Your task to perform on an android device: Go to CNN.com Image 0: 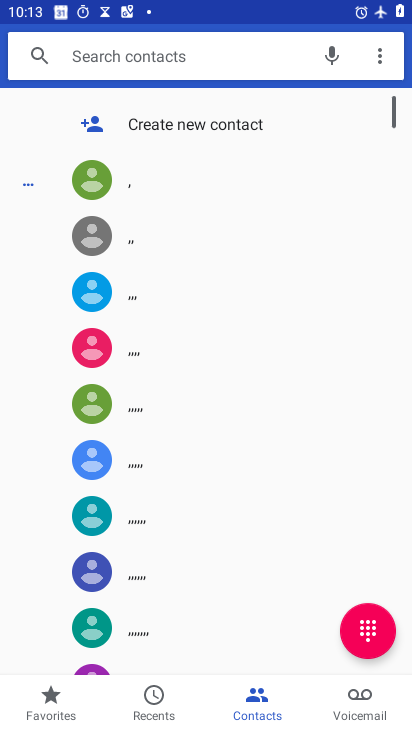
Step 0: press home button
Your task to perform on an android device: Go to CNN.com Image 1: 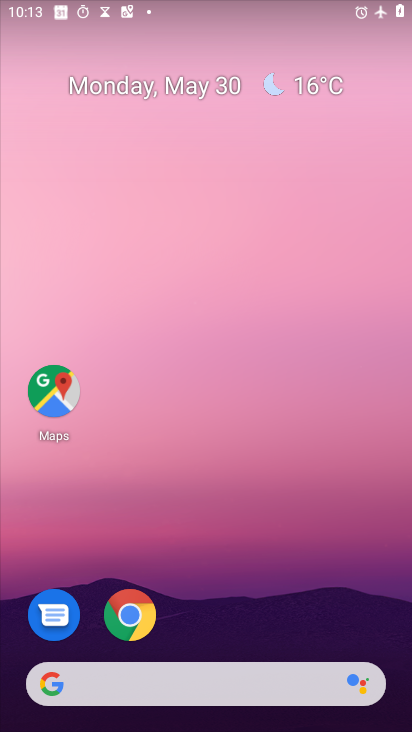
Step 1: drag from (272, 587) to (228, 27)
Your task to perform on an android device: Go to CNN.com Image 2: 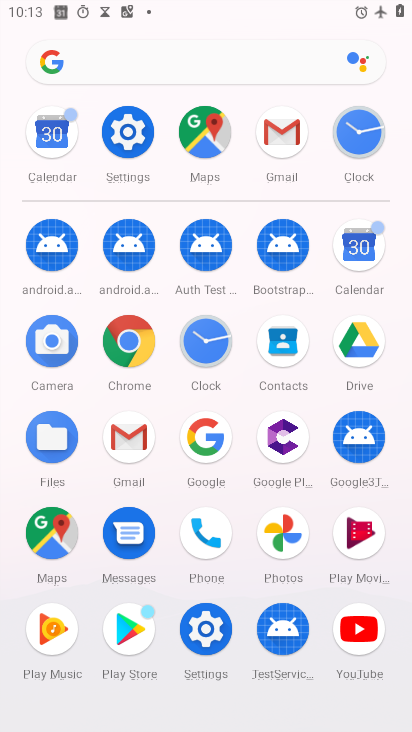
Step 2: click (127, 352)
Your task to perform on an android device: Go to CNN.com Image 3: 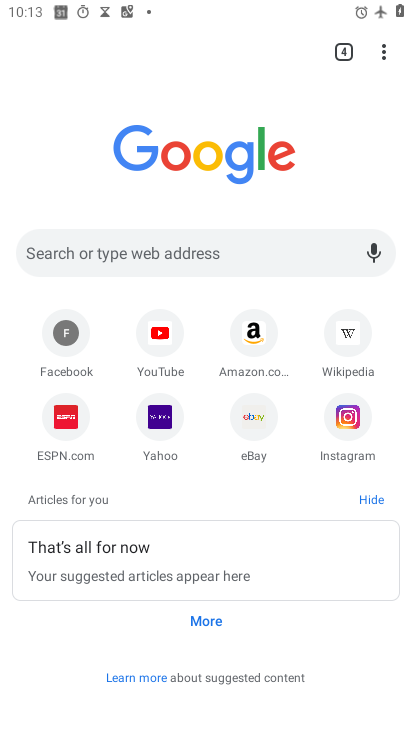
Step 3: click (188, 261)
Your task to perform on an android device: Go to CNN.com Image 4: 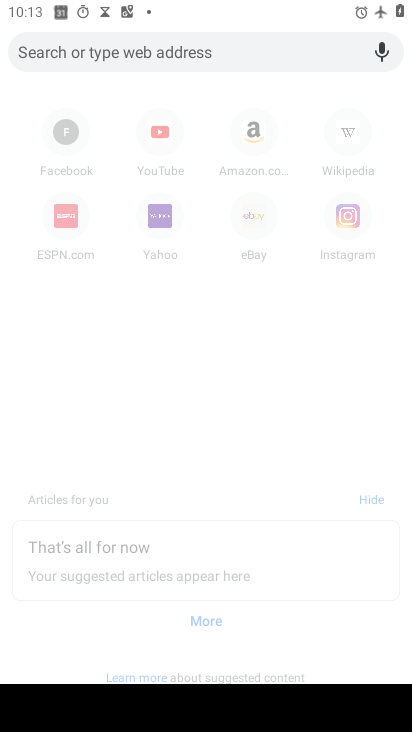
Step 4: type "cnn"
Your task to perform on an android device: Go to CNN.com Image 5: 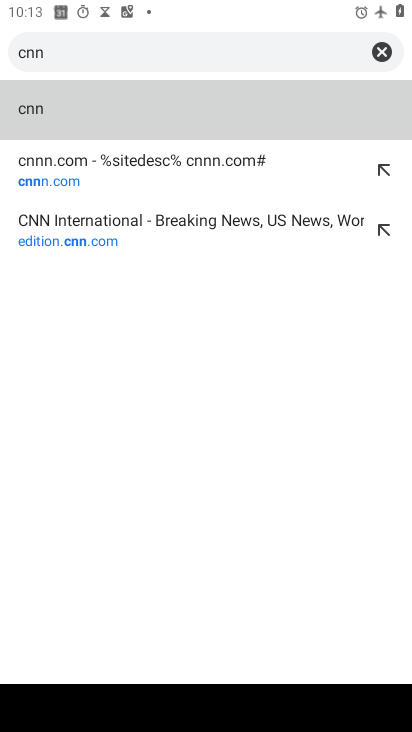
Step 5: click (56, 158)
Your task to perform on an android device: Go to CNN.com Image 6: 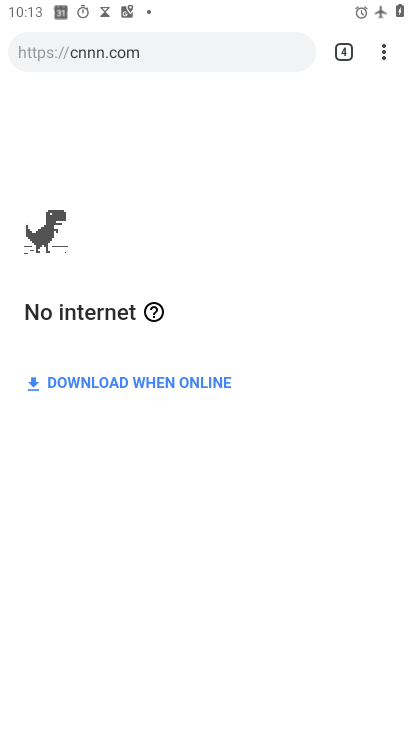
Step 6: task complete